Your task to perform on an android device: Go to wifi settings Image 0: 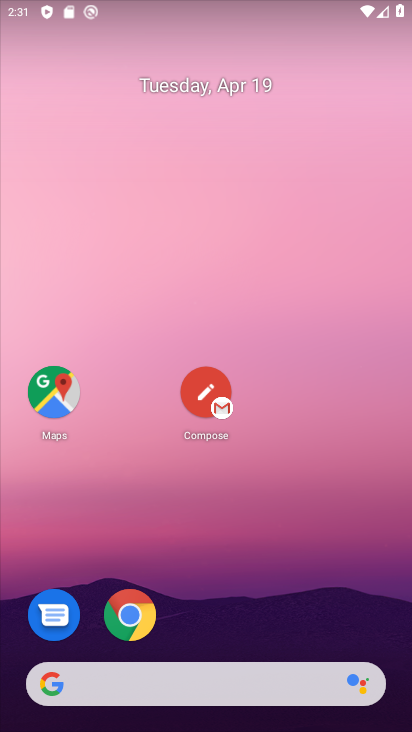
Step 0: drag from (240, 640) to (179, 65)
Your task to perform on an android device: Go to wifi settings Image 1: 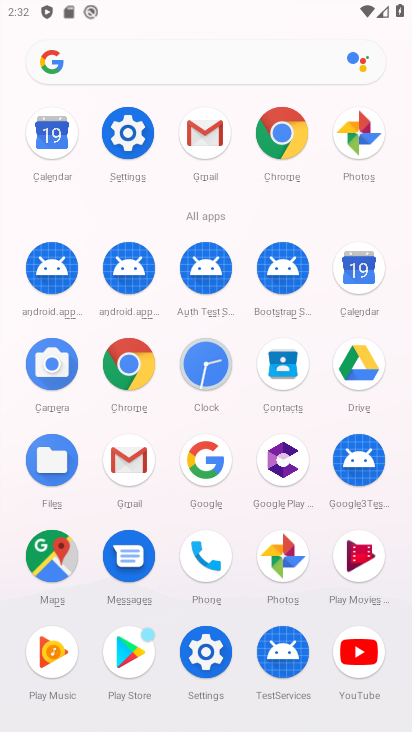
Step 1: drag from (215, 655) to (234, 179)
Your task to perform on an android device: Go to wifi settings Image 2: 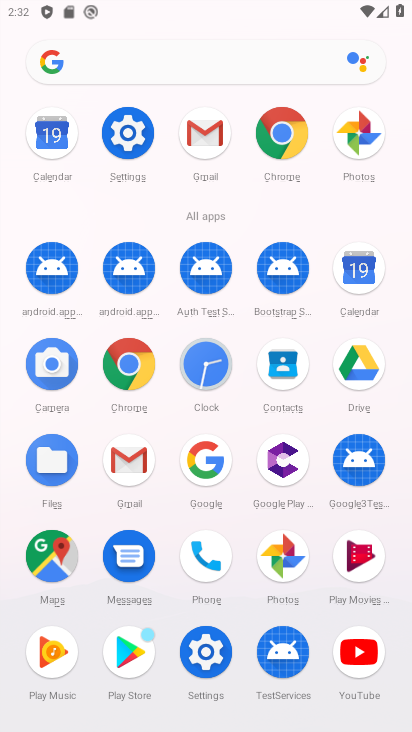
Step 2: click (133, 151)
Your task to perform on an android device: Go to wifi settings Image 3: 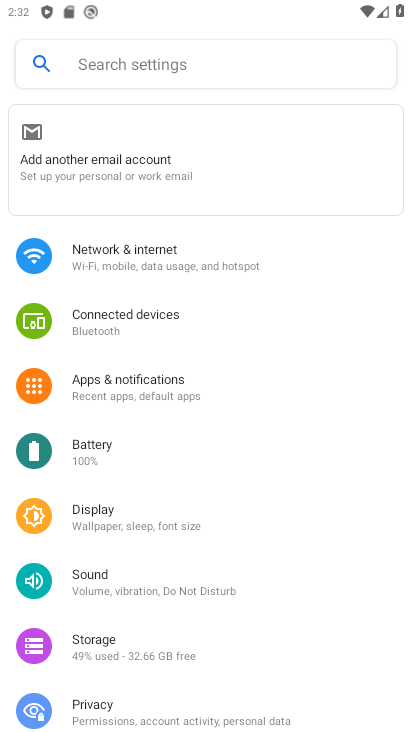
Step 3: click (161, 260)
Your task to perform on an android device: Go to wifi settings Image 4: 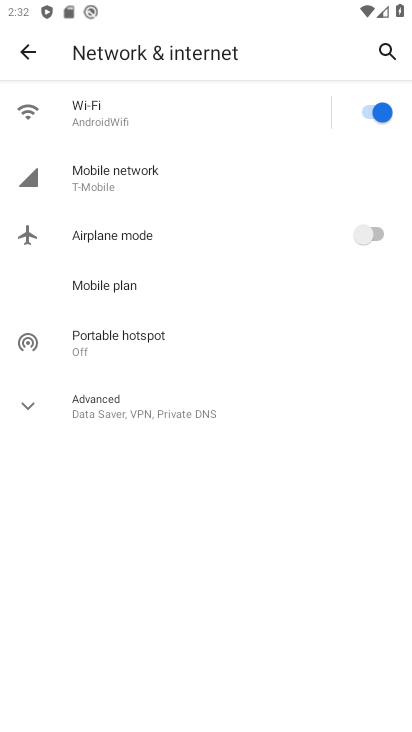
Step 4: task complete